Your task to perform on an android device: Open Chrome and go to the settings page Image 0: 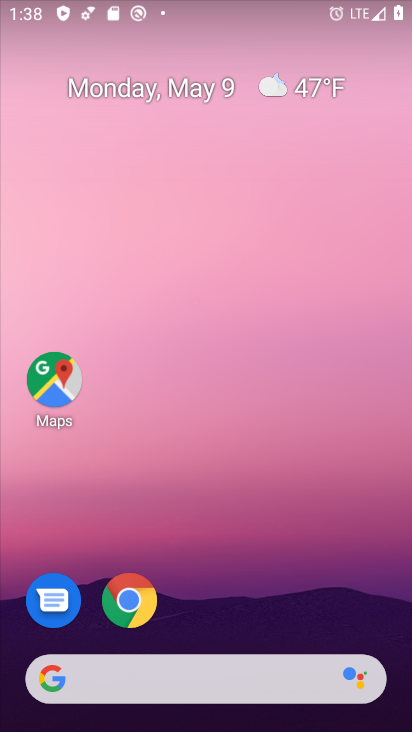
Step 0: drag from (215, 687) to (226, 300)
Your task to perform on an android device: Open Chrome and go to the settings page Image 1: 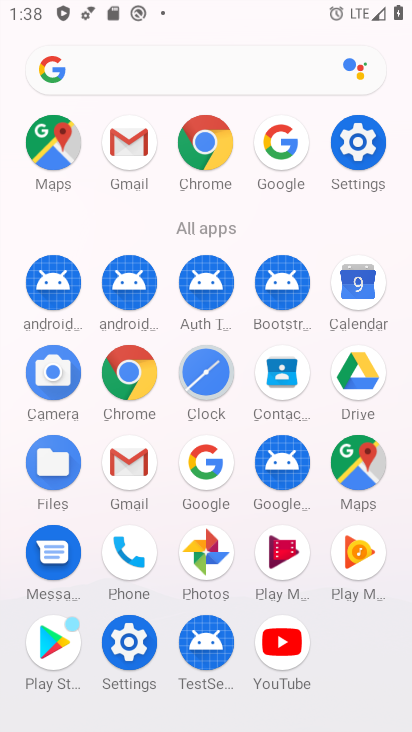
Step 1: click (199, 144)
Your task to perform on an android device: Open Chrome and go to the settings page Image 2: 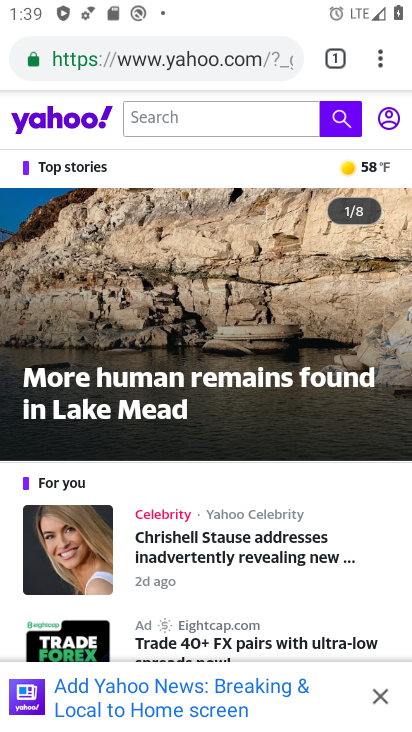
Step 2: task complete